Your task to perform on an android device: Open Google Chrome and open the bookmarks view Image 0: 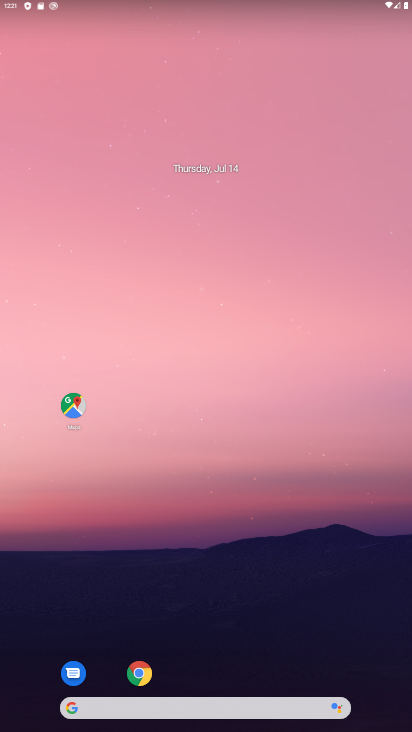
Step 0: click (154, 662)
Your task to perform on an android device: Open Google Chrome and open the bookmarks view Image 1: 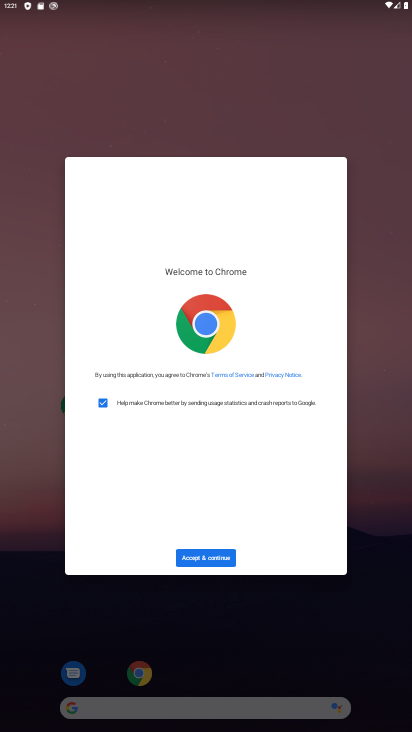
Step 1: click (197, 568)
Your task to perform on an android device: Open Google Chrome and open the bookmarks view Image 2: 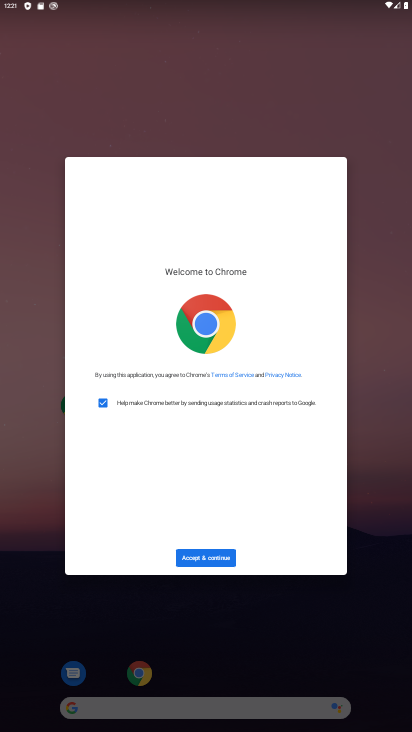
Step 2: click (197, 568)
Your task to perform on an android device: Open Google Chrome and open the bookmarks view Image 3: 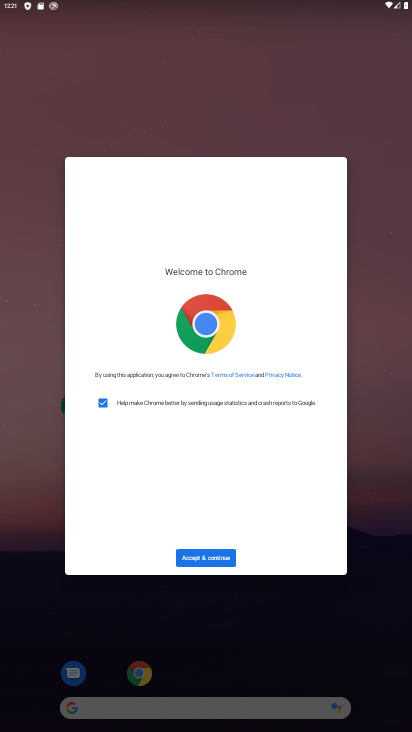
Step 3: click (197, 568)
Your task to perform on an android device: Open Google Chrome and open the bookmarks view Image 4: 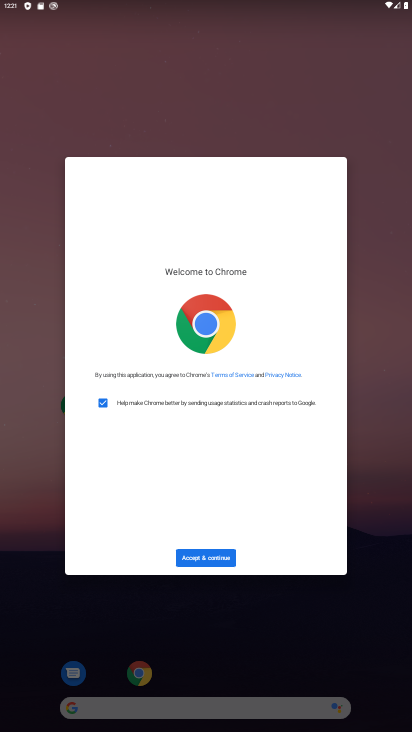
Step 4: click (197, 561)
Your task to perform on an android device: Open Google Chrome and open the bookmarks view Image 5: 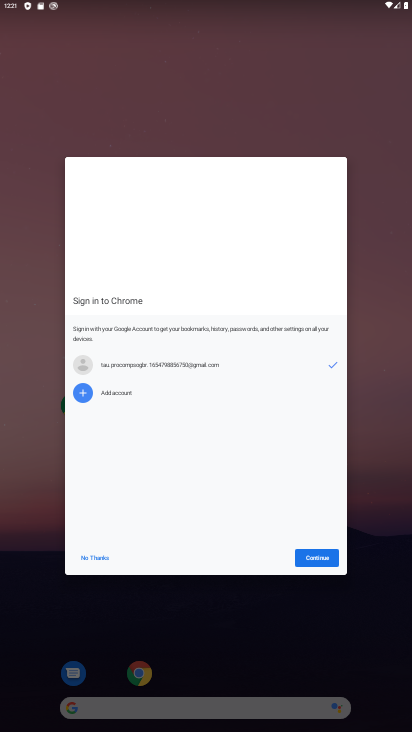
Step 5: click (325, 549)
Your task to perform on an android device: Open Google Chrome and open the bookmarks view Image 6: 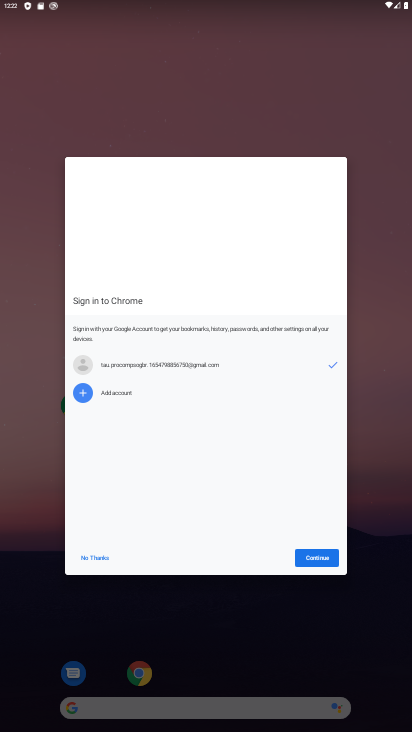
Step 6: click (325, 549)
Your task to perform on an android device: Open Google Chrome and open the bookmarks view Image 7: 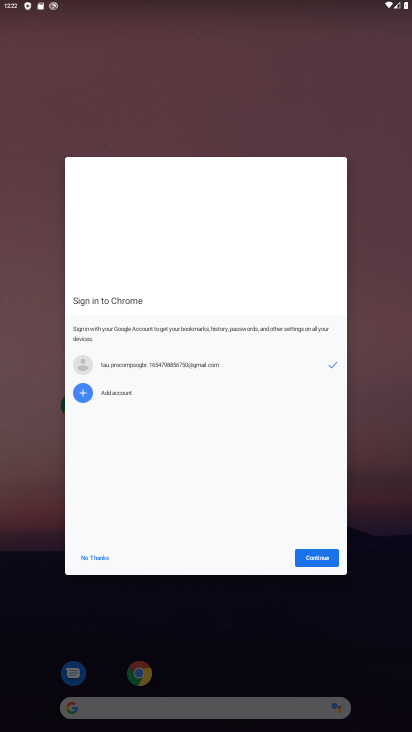
Step 7: click (320, 557)
Your task to perform on an android device: Open Google Chrome and open the bookmarks view Image 8: 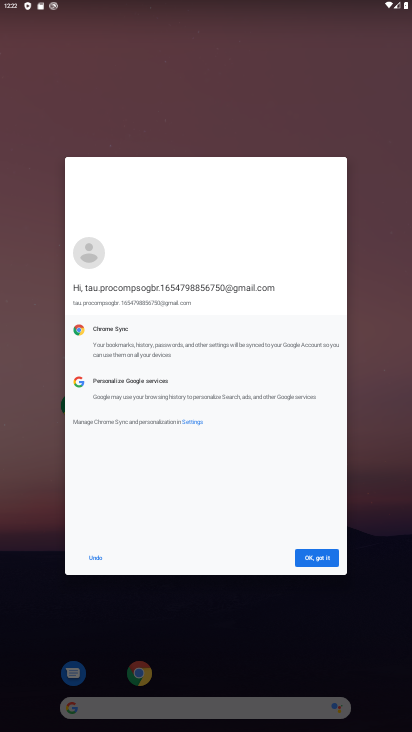
Step 8: click (320, 557)
Your task to perform on an android device: Open Google Chrome and open the bookmarks view Image 9: 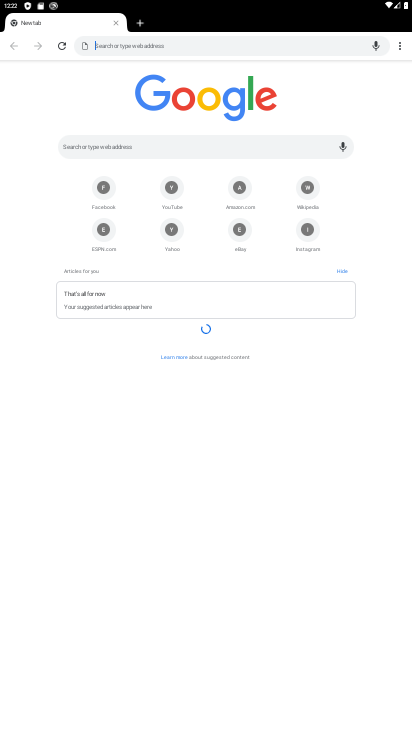
Step 9: click (402, 50)
Your task to perform on an android device: Open Google Chrome and open the bookmarks view Image 10: 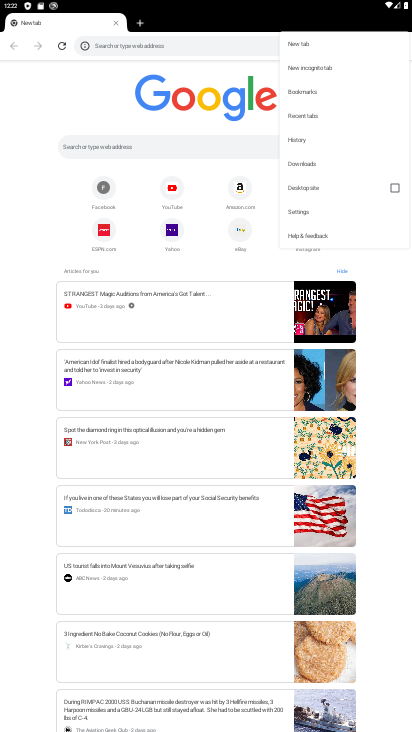
Step 10: click (312, 92)
Your task to perform on an android device: Open Google Chrome and open the bookmarks view Image 11: 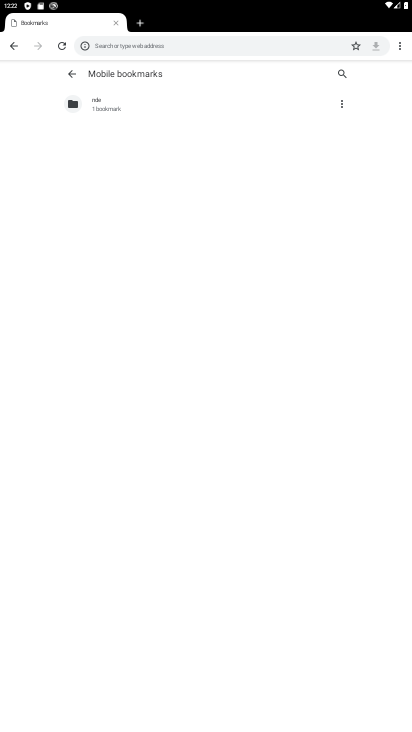
Step 11: task complete